Your task to perform on an android device: find snoozed emails in the gmail app Image 0: 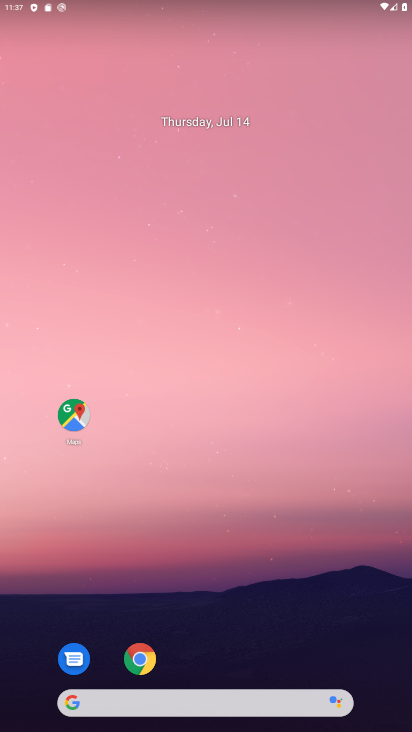
Step 0: drag from (306, 652) to (323, 175)
Your task to perform on an android device: find snoozed emails in the gmail app Image 1: 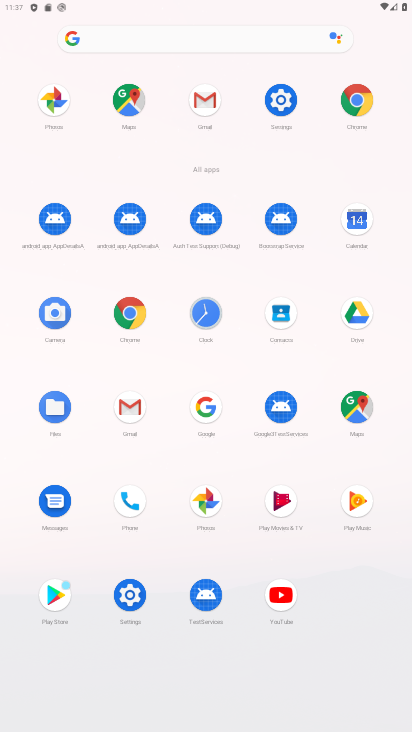
Step 1: click (127, 421)
Your task to perform on an android device: find snoozed emails in the gmail app Image 2: 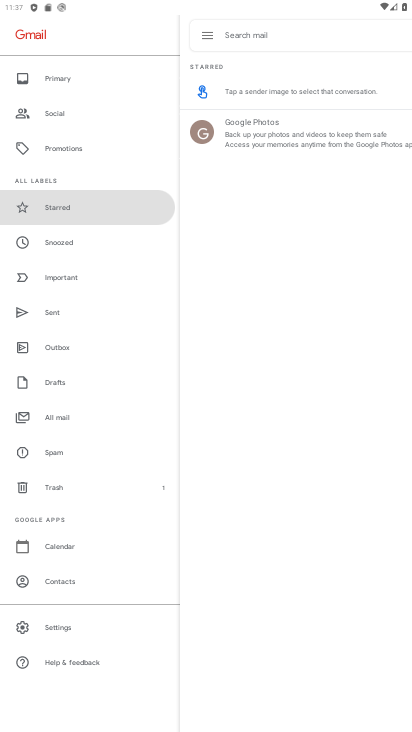
Step 2: click (61, 236)
Your task to perform on an android device: find snoozed emails in the gmail app Image 3: 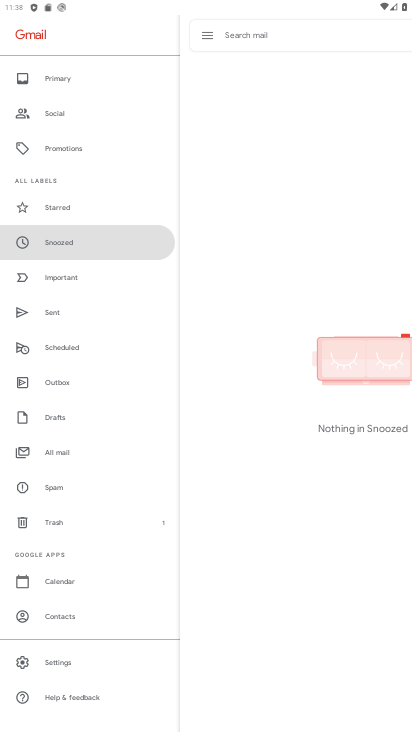
Step 3: task complete